Your task to perform on an android device: Open battery settings Image 0: 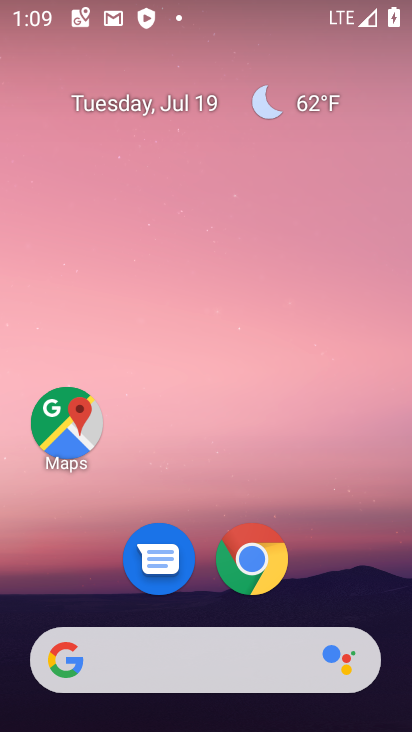
Step 0: drag from (208, 642) to (205, 130)
Your task to perform on an android device: Open battery settings Image 1: 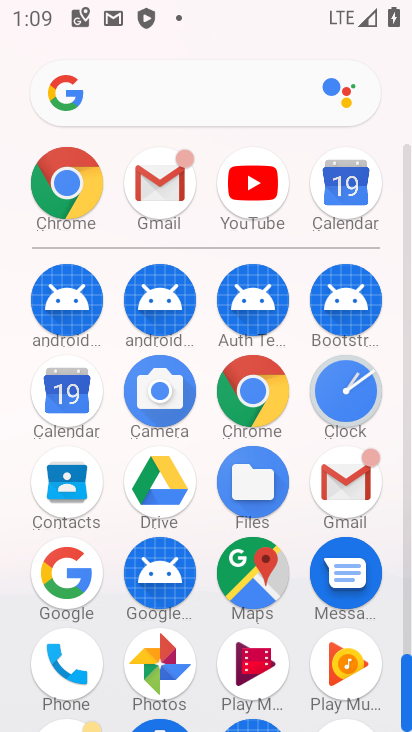
Step 1: drag from (267, 519) to (280, 261)
Your task to perform on an android device: Open battery settings Image 2: 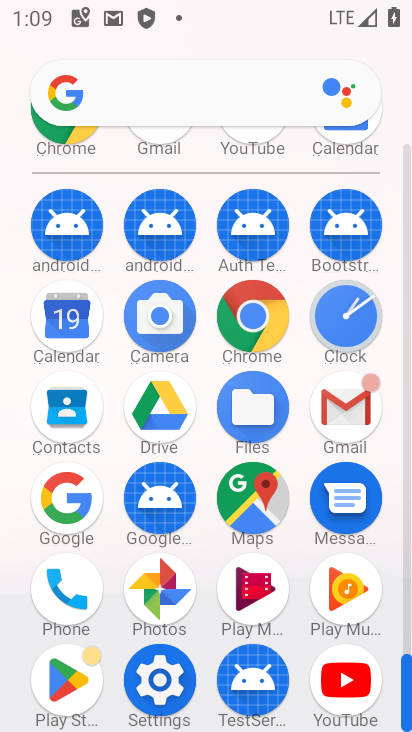
Step 2: click (151, 681)
Your task to perform on an android device: Open battery settings Image 3: 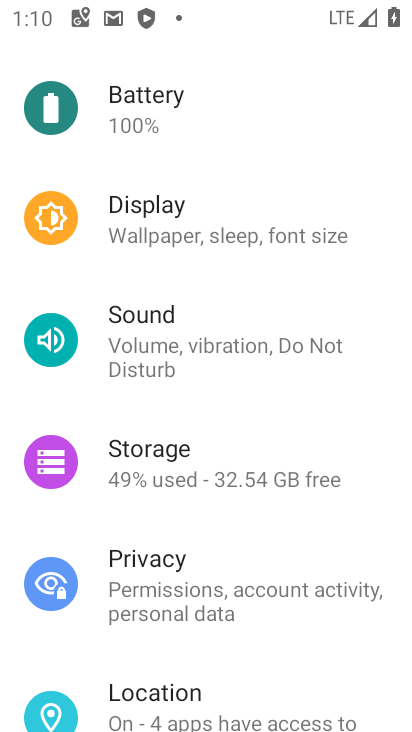
Step 3: click (184, 106)
Your task to perform on an android device: Open battery settings Image 4: 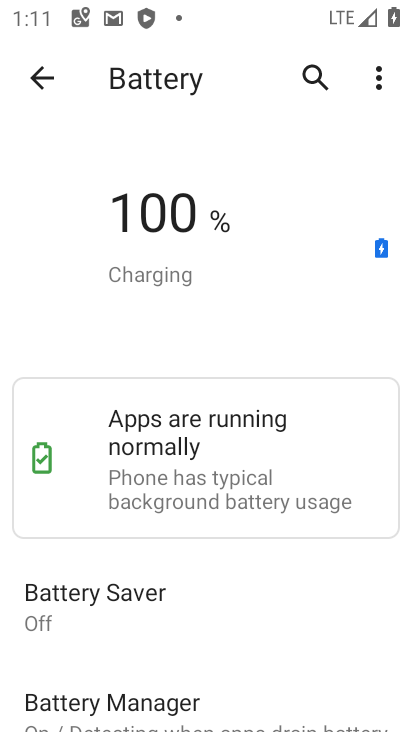
Step 4: task complete